Your task to perform on an android device: turn notification dots on Image 0: 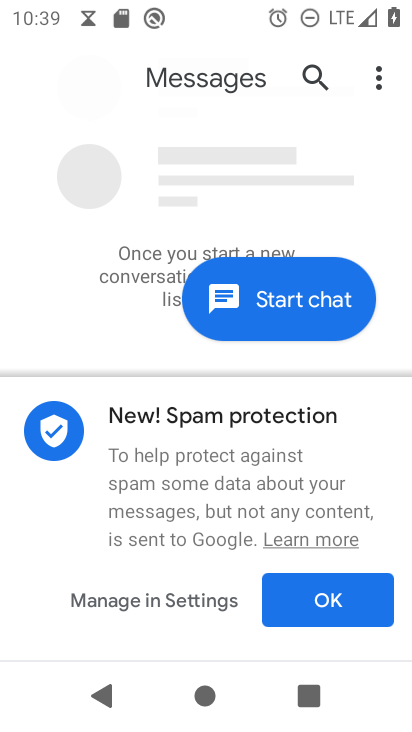
Step 0: press home button
Your task to perform on an android device: turn notification dots on Image 1: 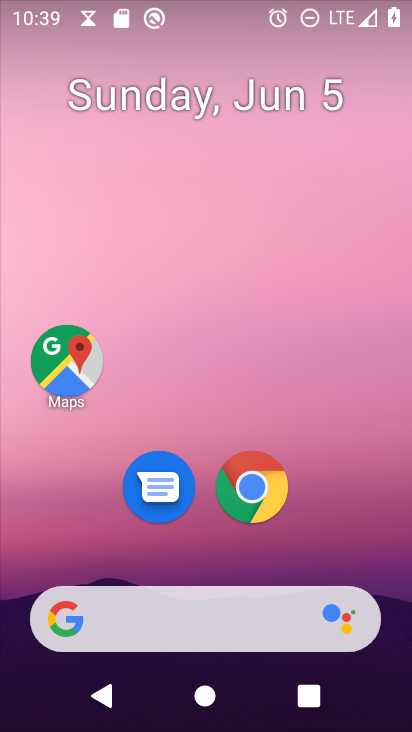
Step 1: drag from (270, 561) to (259, 206)
Your task to perform on an android device: turn notification dots on Image 2: 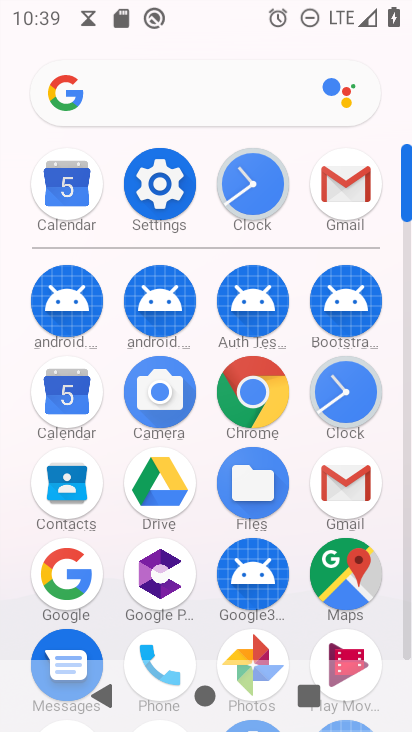
Step 2: click (160, 178)
Your task to perform on an android device: turn notification dots on Image 3: 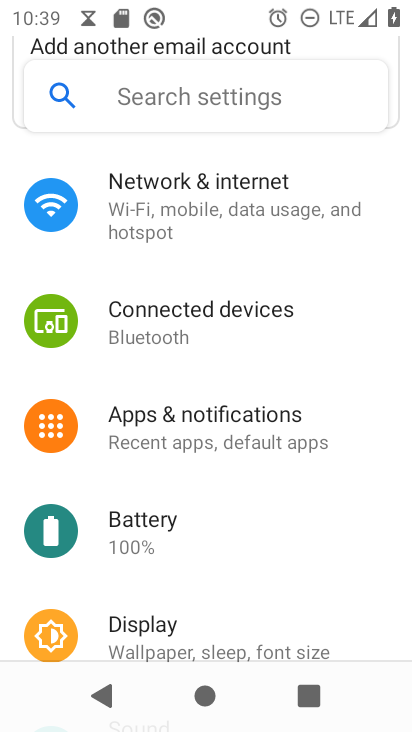
Step 3: click (199, 92)
Your task to perform on an android device: turn notification dots on Image 4: 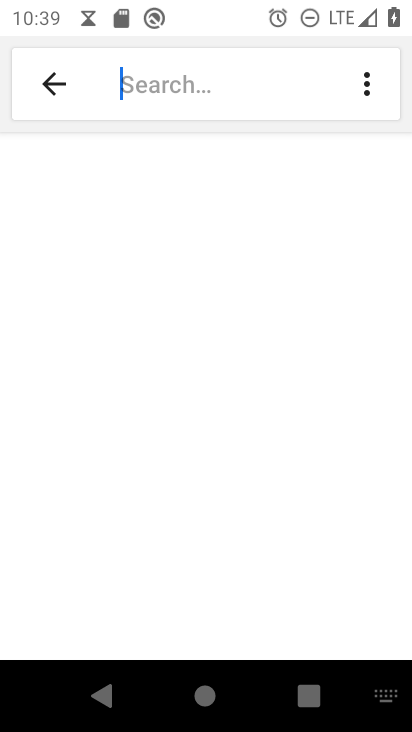
Step 4: click (242, 68)
Your task to perform on an android device: turn notification dots on Image 5: 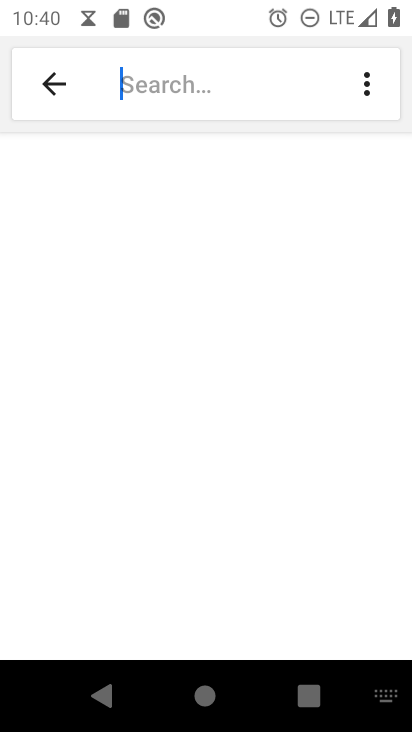
Step 5: click (177, 79)
Your task to perform on an android device: turn notification dots on Image 6: 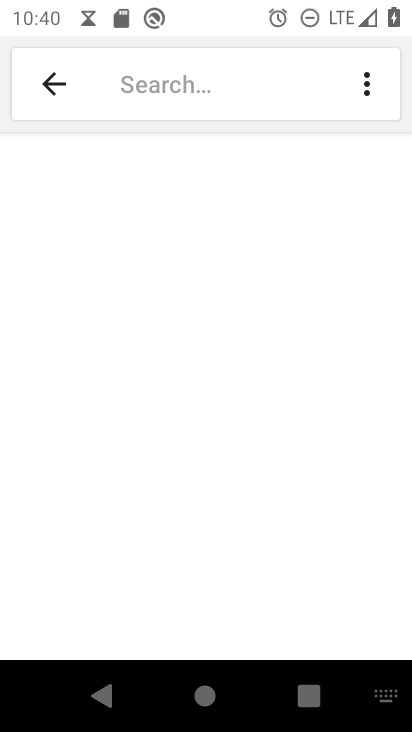
Step 6: type " notification dots"
Your task to perform on an android device: turn notification dots on Image 7: 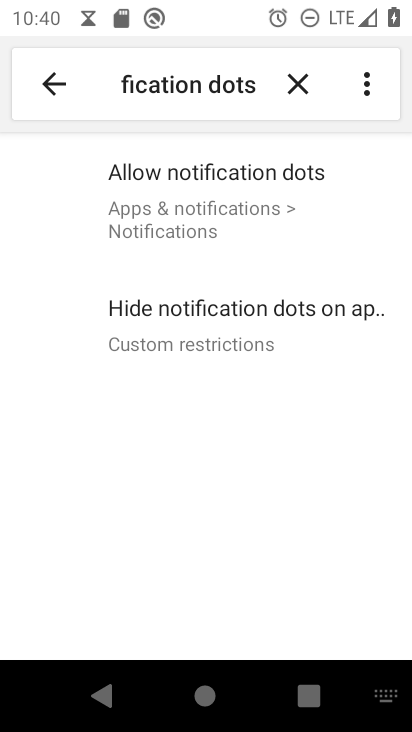
Step 7: click (250, 168)
Your task to perform on an android device: turn notification dots on Image 8: 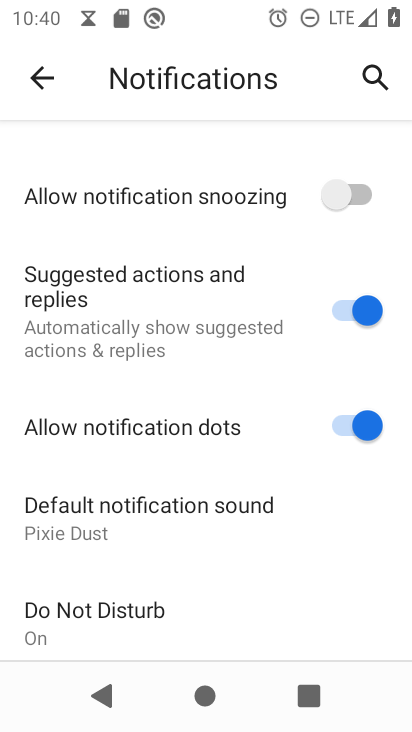
Step 8: task complete